Your task to perform on an android device: search for starred emails in the gmail app Image 0: 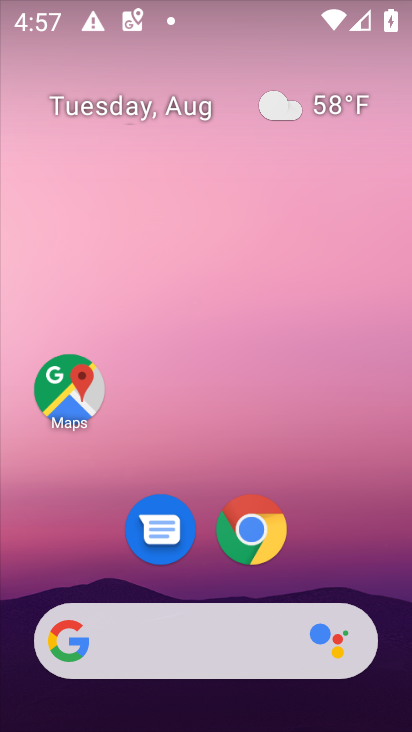
Step 0: drag from (189, 460) to (193, 3)
Your task to perform on an android device: search for starred emails in the gmail app Image 1: 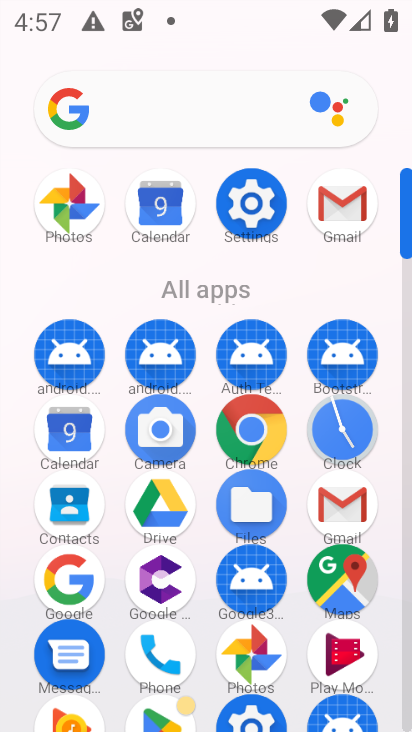
Step 1: click (320, 495)
Your task to perform on an android device: search for starred emails in the gmail app Image 2: 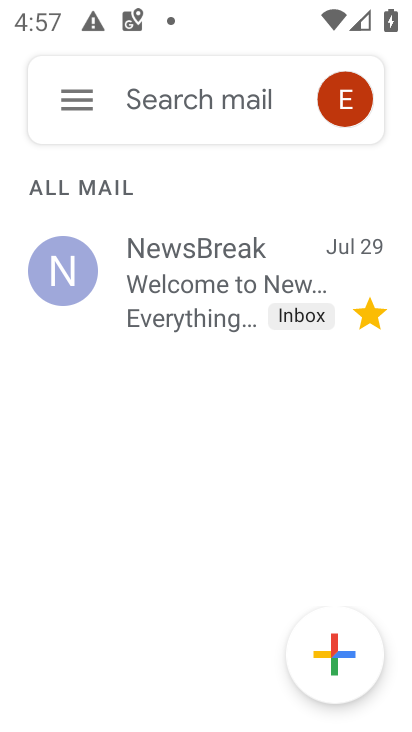
Step 2: click (61, 83)
Your task to perform on an android device: search for starred emails in the gmail app Image 3: 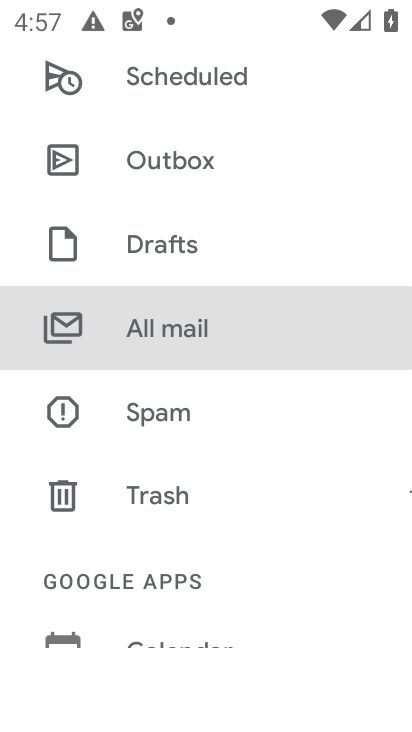
Step 3: drag from (179, 255) to (219, 444)
Your task to perform on an android device: search for starred emails in the gmail app Image 4: 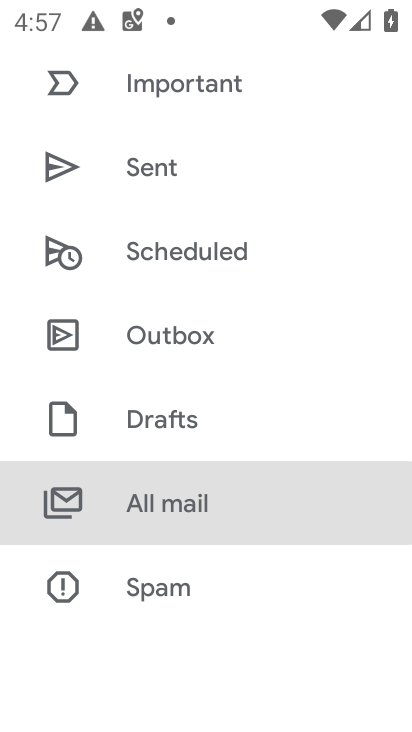
Step 4: drag from (230, 224) to (275, 512)
Your task to perform on an android device: search for starred emails in the gmail app Image 5: 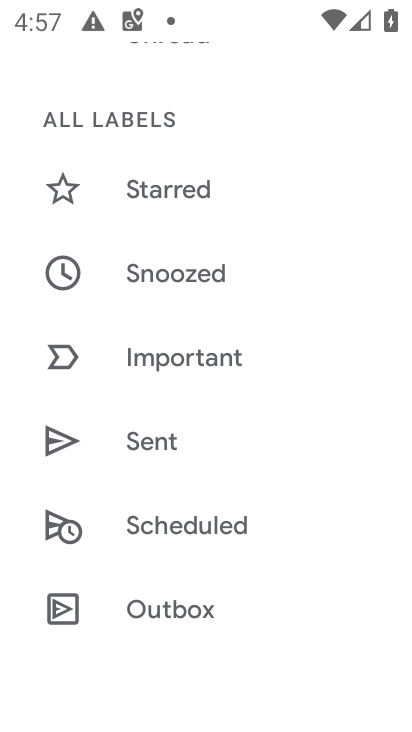
Step 5: drag from (213, 241) to (260, 530)
Your task to perform on an android device: search for starred emails in the gmail app Image 6: 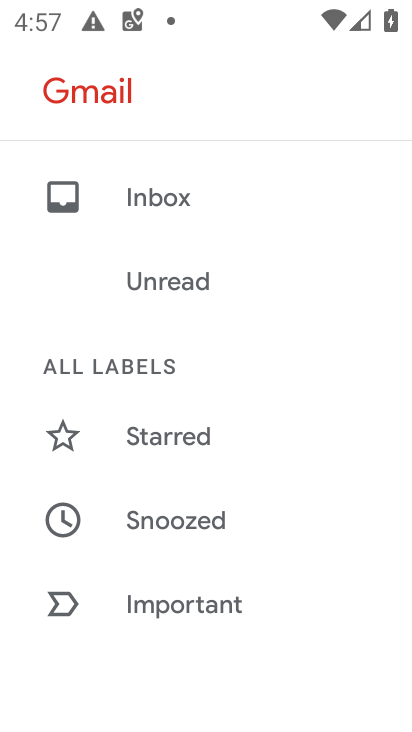
Step 6: click (182, 434)
Your task to perform on an android device: search for starred emails in the gmail app Image 7: 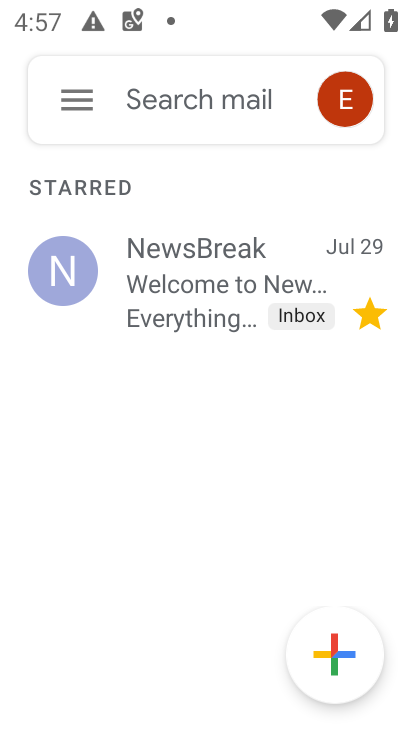
Step 7: task complete